Your task to perform on an android device: Clear the cart on target.com. Search for "logitech g502" on target.com, select the first entry, and add it to the cart. Image 0: 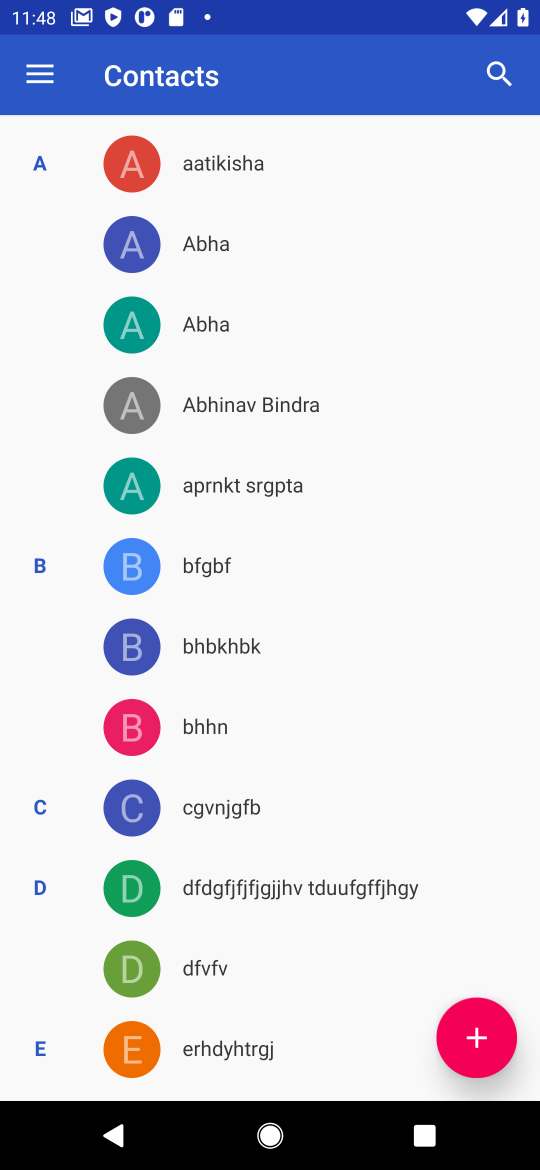
Step 0: press home button
Your task to perform on an android device: Clear the cart on target.com. Search for "logitech g502" on target.com, select the first entry, and add it to the cart. Image 1: 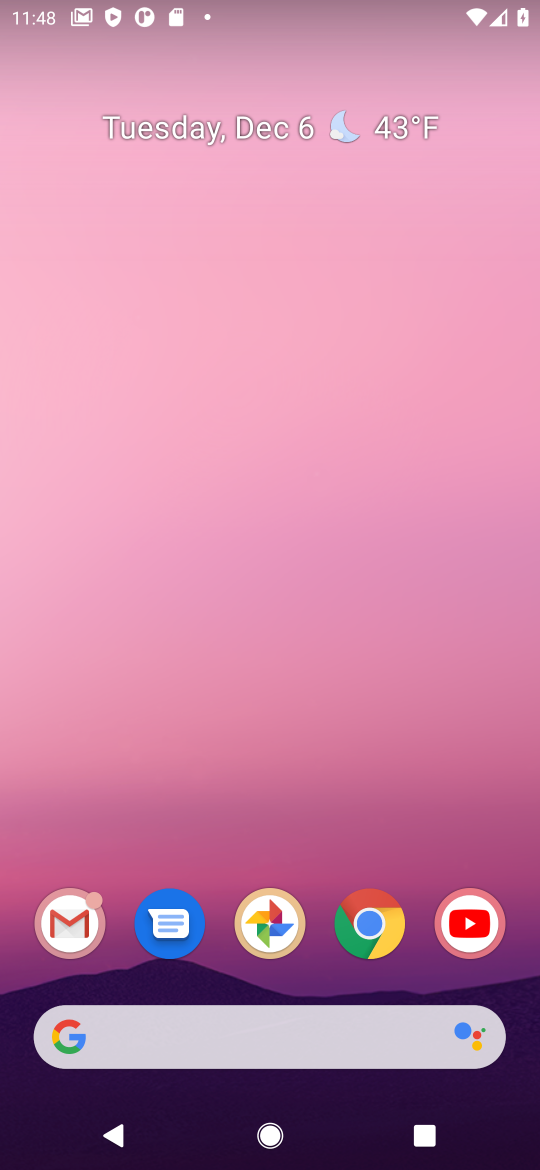
Step 1: click (366, 934)
Your task to perform on an android device: Clear the cart on target.com. Search for "logitech g502" on target.com, select the first entry, and add it to the cart. Image 2: 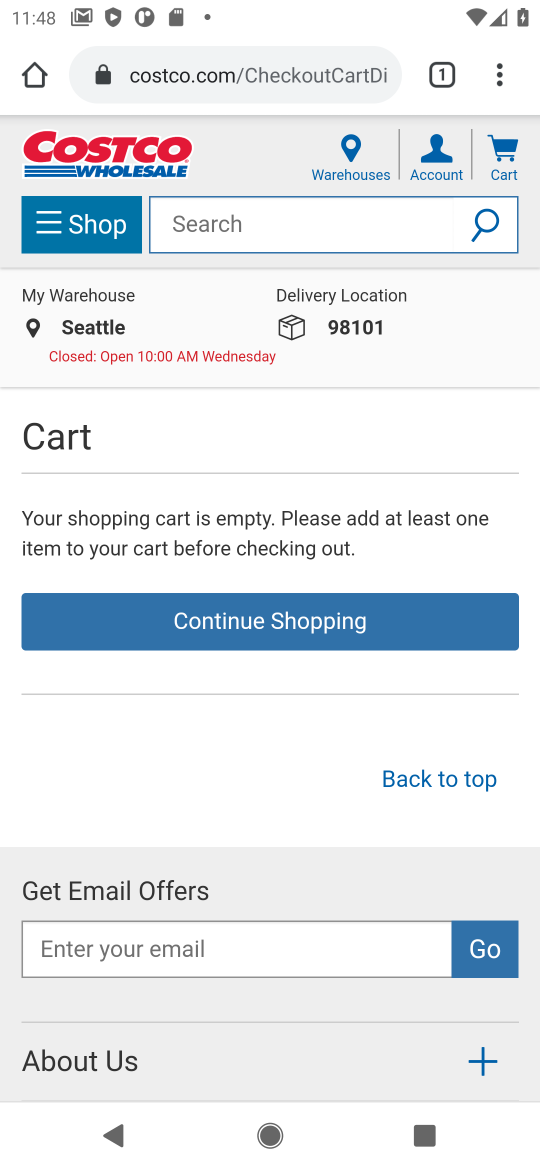
Step 2: click (202, 70)
Your task to perform on an android device: Clear the cart on target.com. Search for "logitech g502" on target.com, select the first entry, and add it to the cart. Image 3: 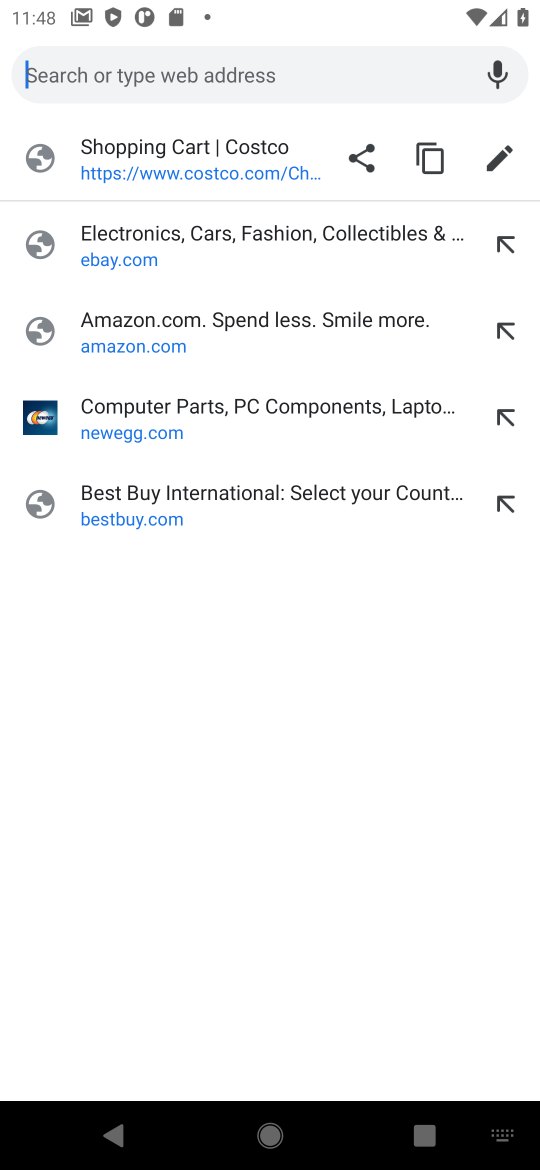
Step 3: type "TARGET"
Your task to perform on an android device: Clear the cart on target.com. Search for "logitech g502" on target.com, select the first entry, and add it to the cart. Image 4: 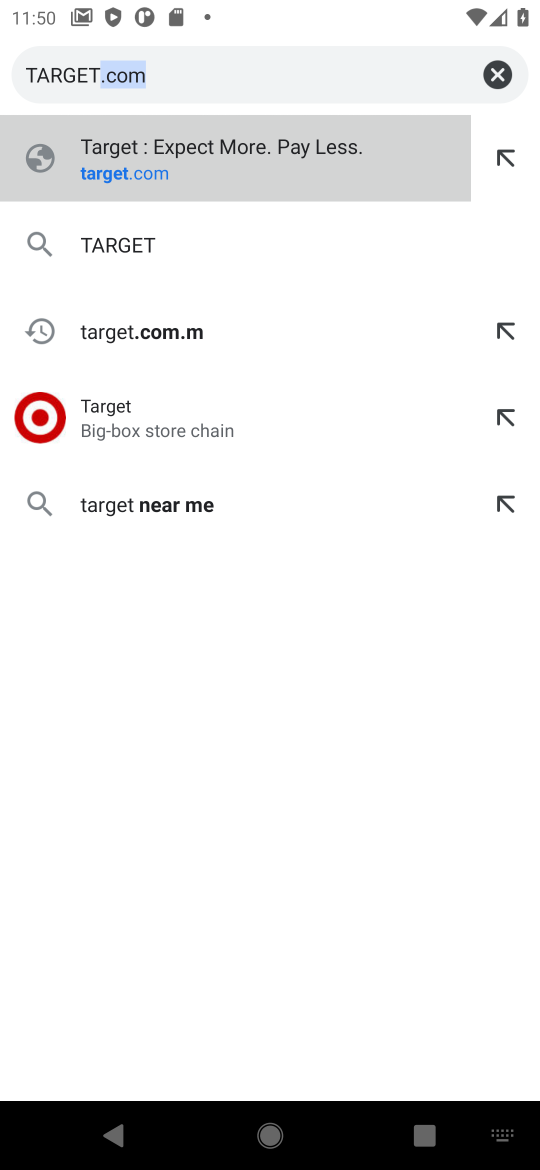
Step 4: click (122, 164)
Your task to perform on an android device: Clear the cart on target.com. Search for "logitech g502" on target.com, select the first entry, and add it to the cart. Image 5: 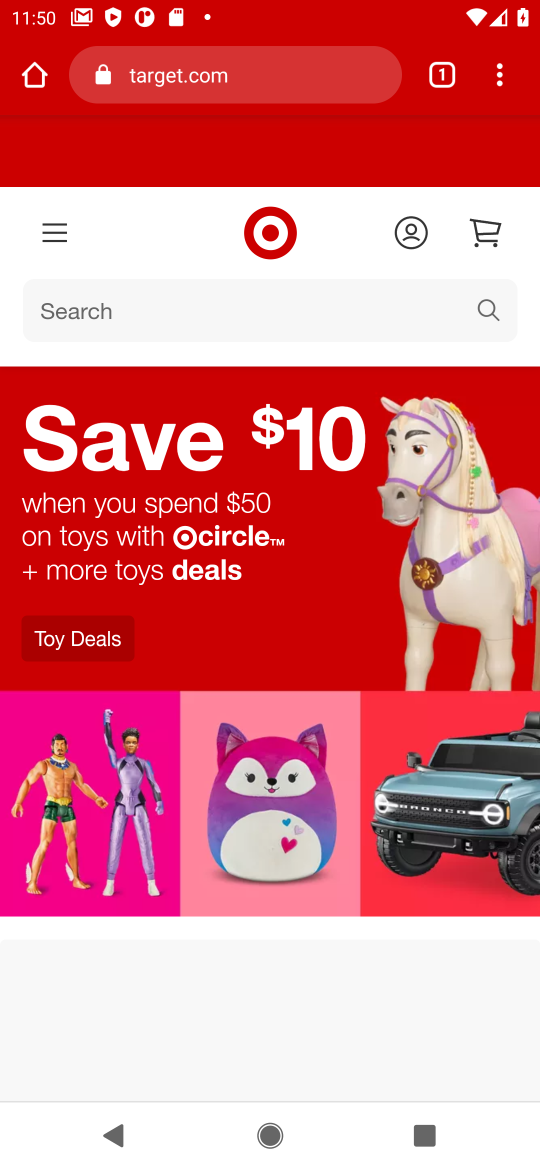
Step 5: click (487, 310)
Your task to perform on an android device: Clear the cart on target.com. Search for "logitech g502" on target.com, select the first entry, and add it to the cart. Image 6: 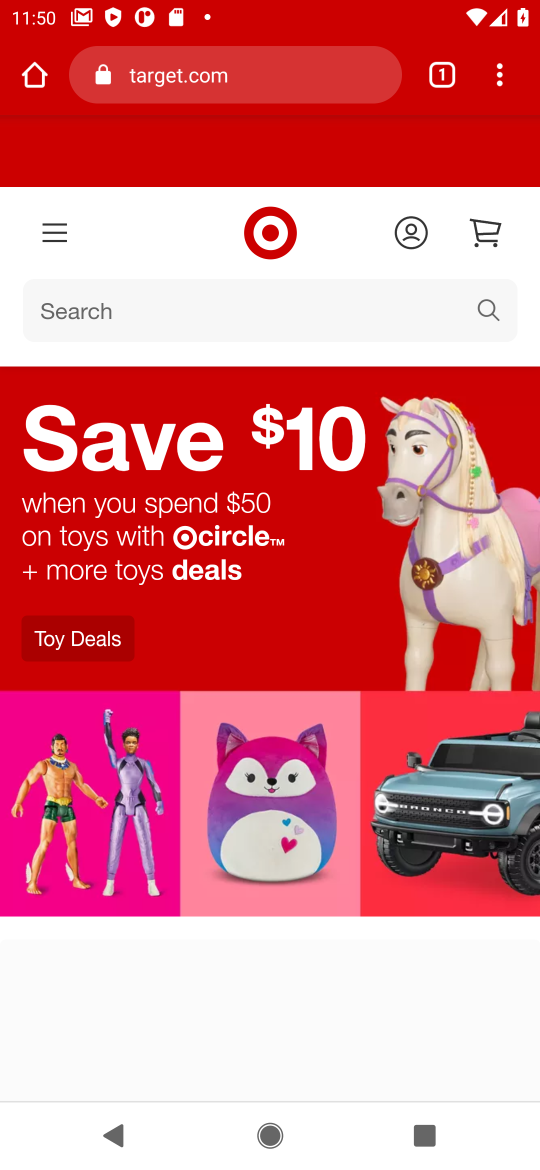
Step 6: click (335, 310)
Your task to perform on an android device: Clear the cart on target.com. Search for "logitech g502" on target.com, select the first entry, and add it to the cart. Image 7: 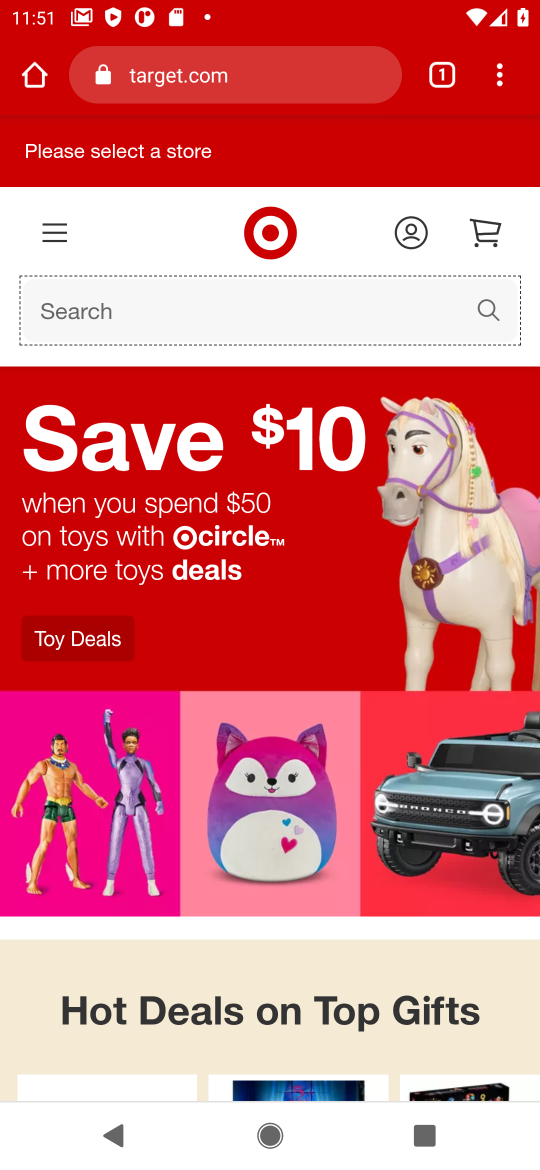
Step 7: click (489, 306)
Your task to perform on an android device: Clear the cart on target.com. Search for "logitech g502" on target.com, select the first entry, and add it to the cart. Image 8: 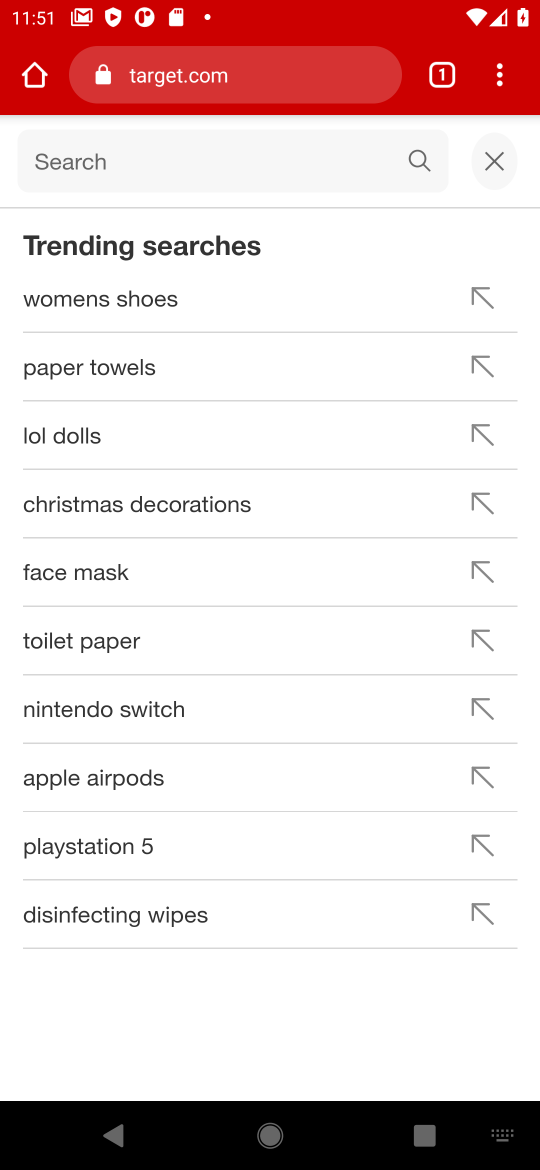
Step 8: type "logitech g502"
Your task to perform on an android device: Clear the cart on target.com. Search for "logitech g502" on target.com, select the first entry, and add it to the cart. Image 9: 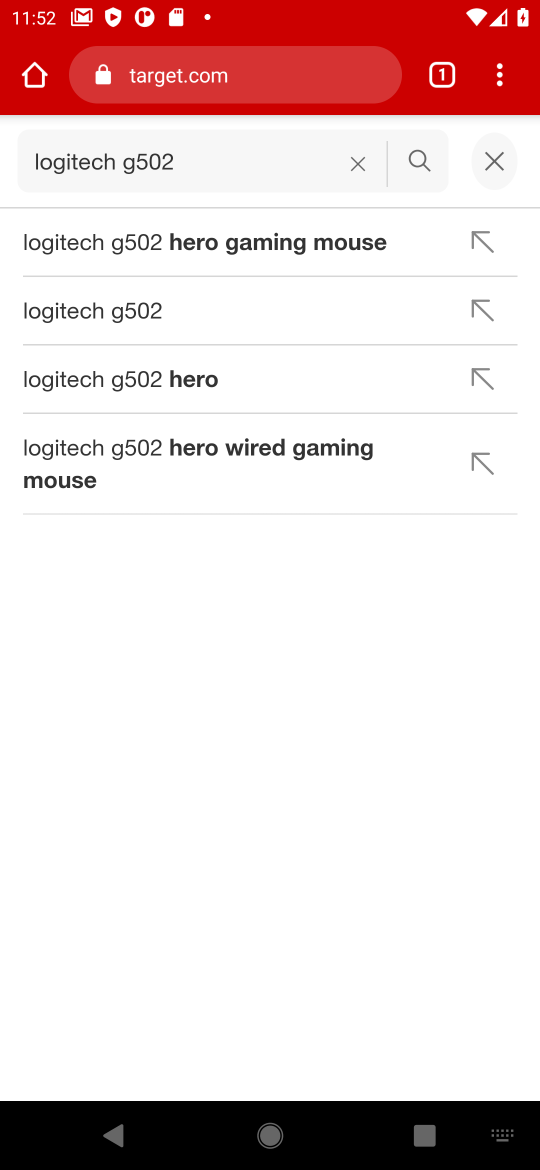
Step 9: task complete